Your task to perform on an android device: turn on notifications settings in the gmail app Image 0: 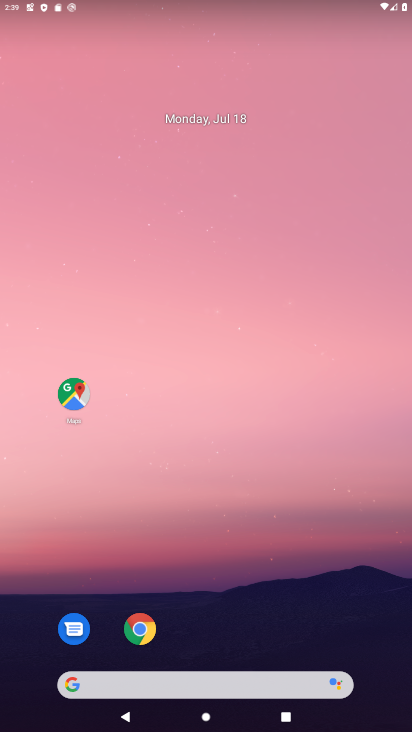
Step 0: drag from (232, 637) to (207, 231)
Your task to perform on an android device: turn on notifications settings in the gmail app Image 1: 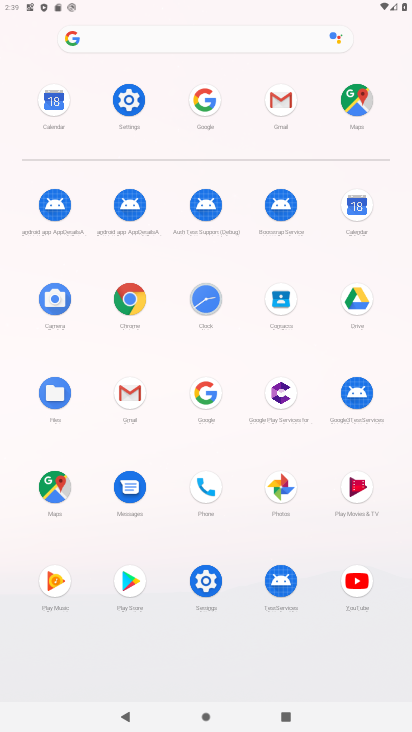
Step 1: click (266, 103)
Your task to perform on an android device: turn on notifications settings in the gmail app Image 2: 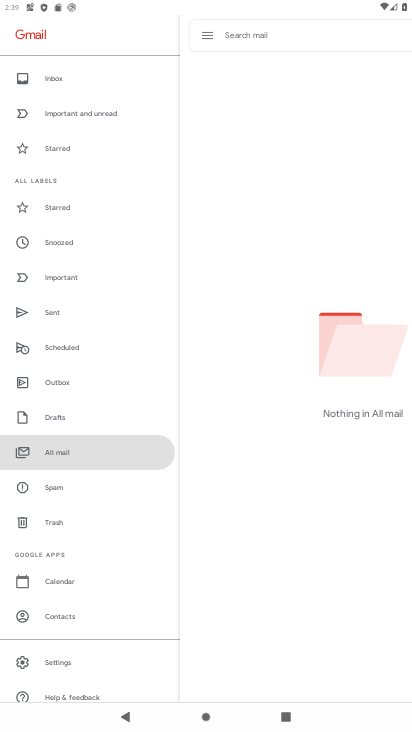
Step 2: click (68, 656)
Your task to perform on an android device: turn on notifications settings in the gmail app Image 3: 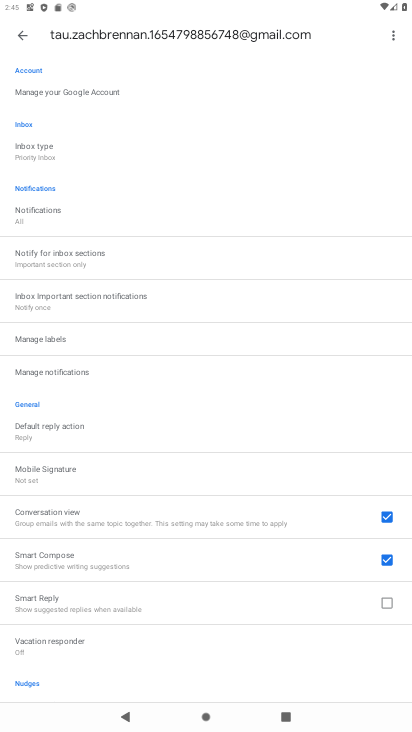
Step 3: click (81, 369)
Your task to perform on an android device: turn on notifications settings in the gmail app Image 4: 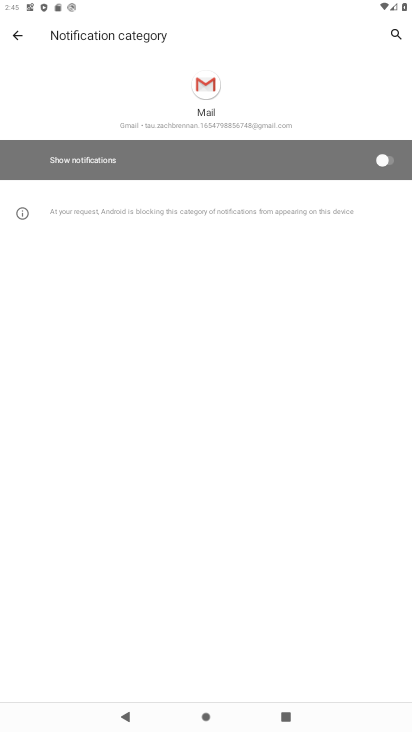
Step 4: click (385, 158)
Your task to perform on an android device: turn on notifications settings in the gmail app Image 5: 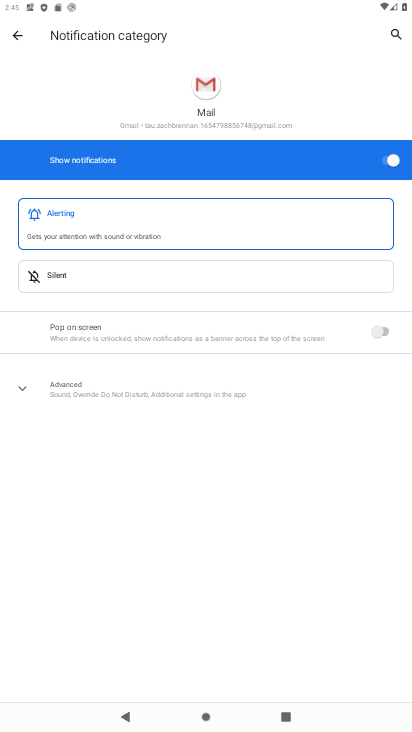
Step 5: task complete